Your task to perform on an android device: Open the phone app and click the voicemail tab. Image 0: 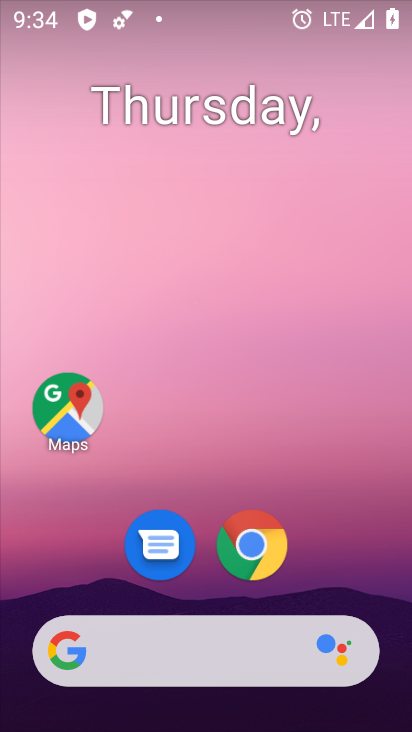
Step 0: drag from (303, 405) to (239, 75)
Your task to perform on an android device: Open the phone app and click the voicemail tab. Image 1: 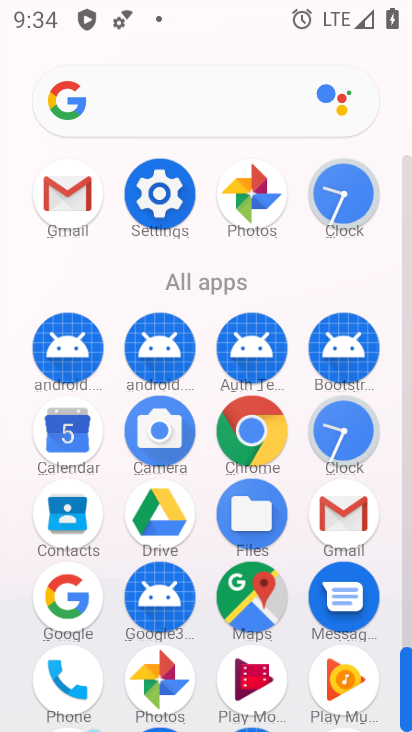
Step 1: click (52, 688)
Your task to perform on an android device: Open the phone app and click the voicemail tab. Image 2: 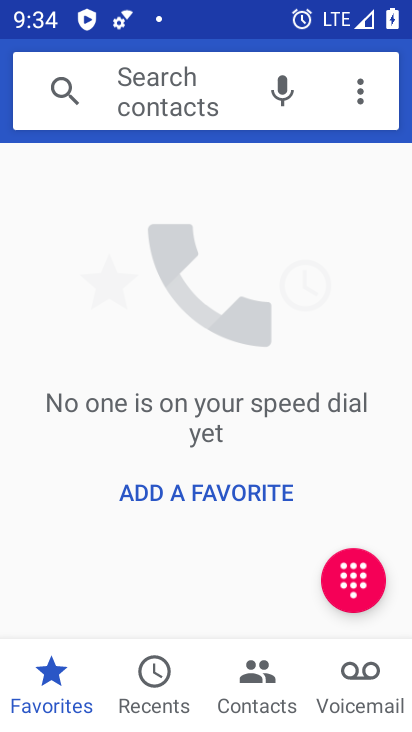
Step 2: click (358, 677)
Your task to perform on an android device: Open the phone app and click the voicemail tab. Image 3: 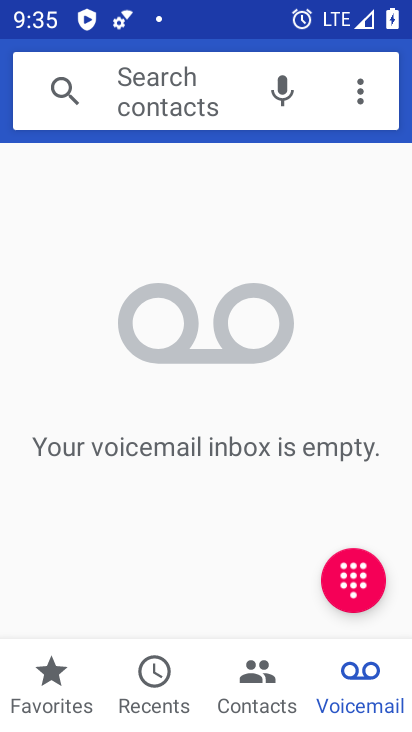
Step 3: task complete